Your task to perform on an android device: Search for sushi restaurants on Maps Image 0: 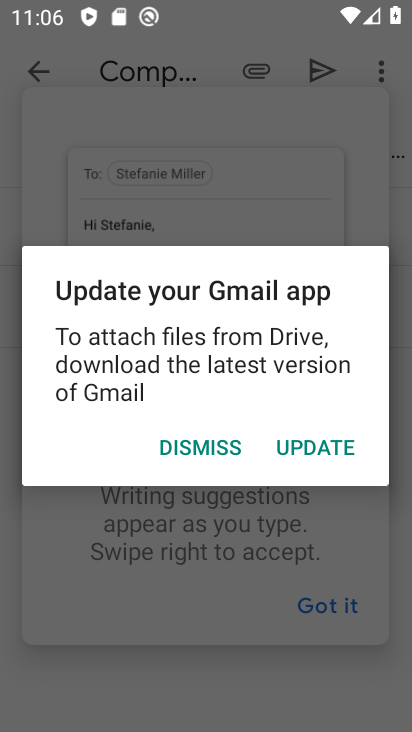
Step 0: press home button
Your task to perform on an android device: Search for sushi restaurants on Maps Image 1: 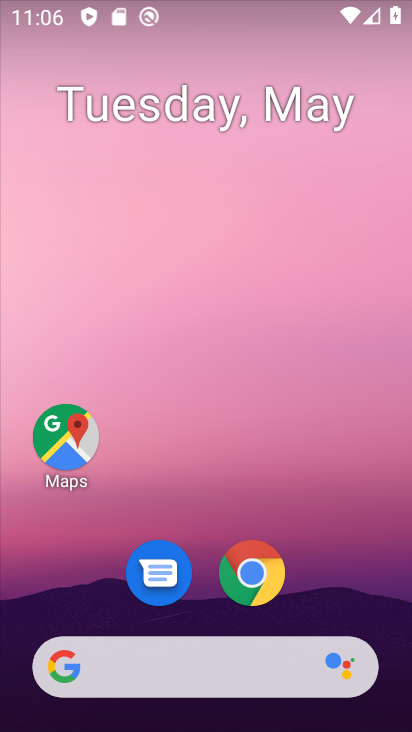
Step 1: drag from (309, 657) to (286, 48)
Your task to perform on an android device: Search for sushi restaurants on Maps Image 2: 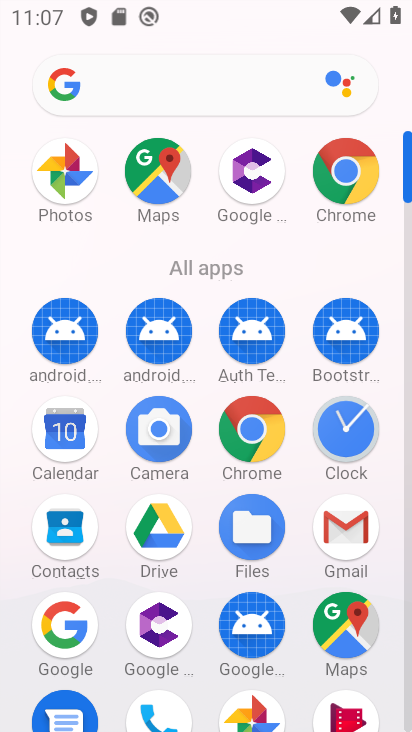
Step 2: click (158, 181)
Your task to perform on an android device: Search for sushi restaurants on Maps Image 3: 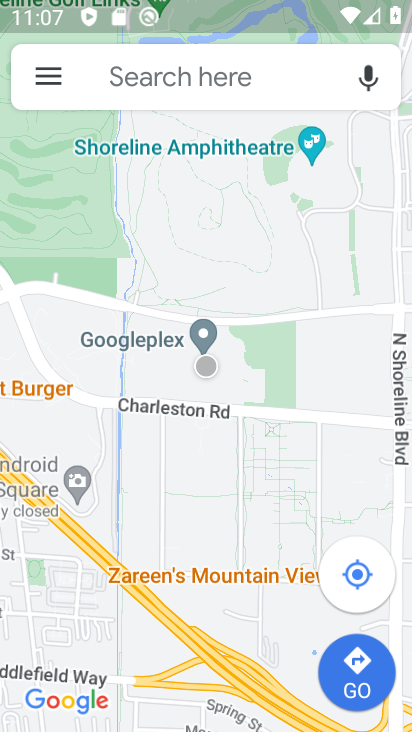
Step 3: click (154, 63)
Your task to perform on an android device: Search for sushi restaurants on Maps Image 4: 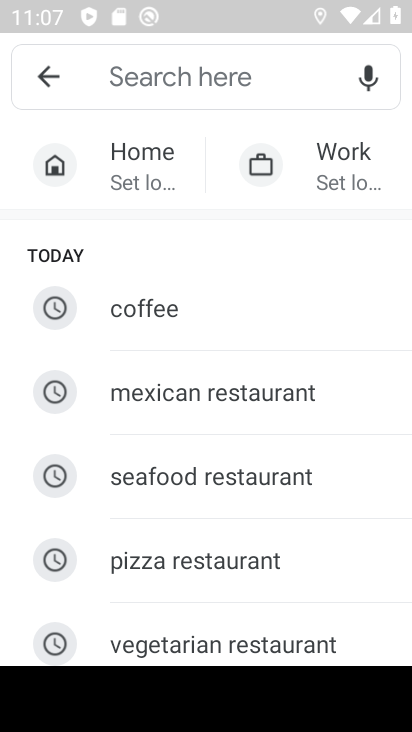
Step 4: drag from (385, 700) to (357, 600)
Your task to perform on an android device: Search for sushi restaurants on Maps Image 5: 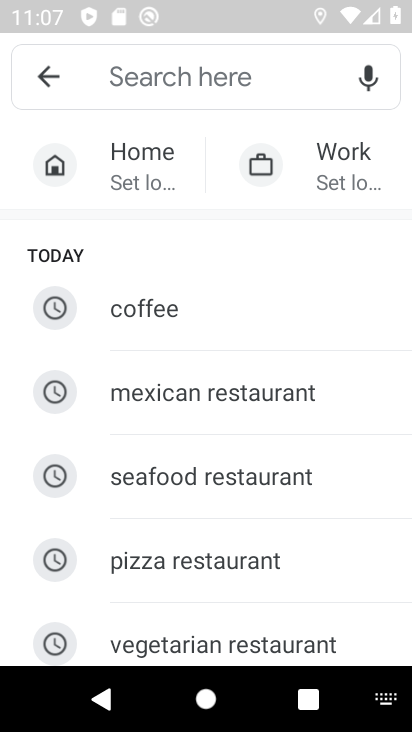
Step 5: click (386, 704)
Your task to perform on an android device: Search for sushi restaurants on Maps Image 6: 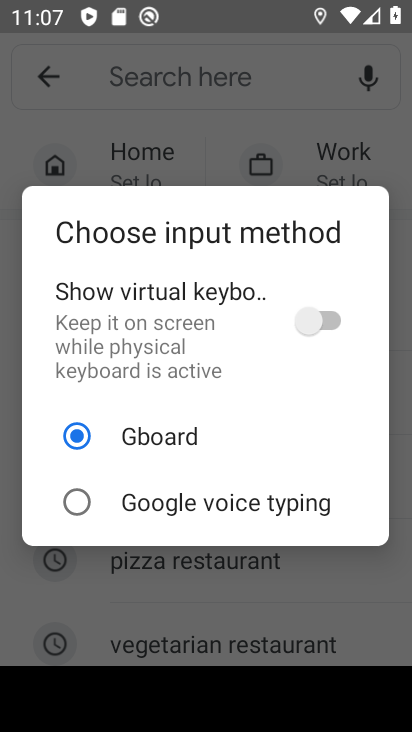
Step 6: click (329, 305)
Your task to perform on an android device: Search for sushi restaurants on Maps Image 7: 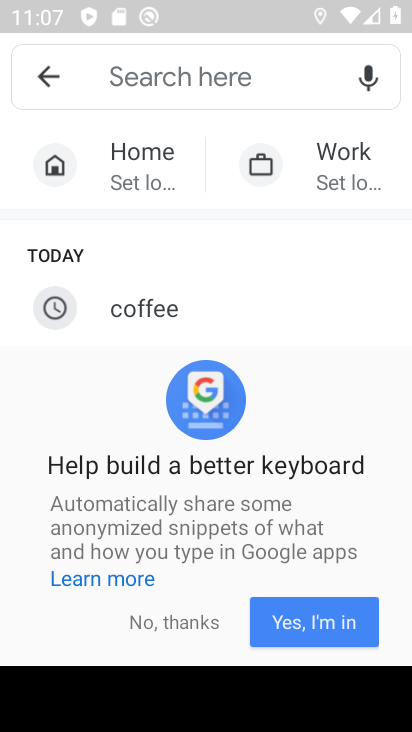
Step 7: click (166, 624)
Your task to perform on an android device: Search for sushi restaurants on Maps Image 8: 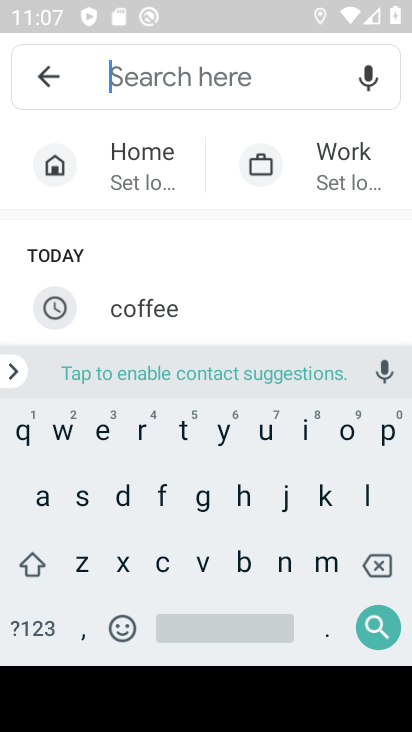
Step 8: click (80, 494)
Your task to perform on an android device: Search for sushi restaurants on Maps Image 9: 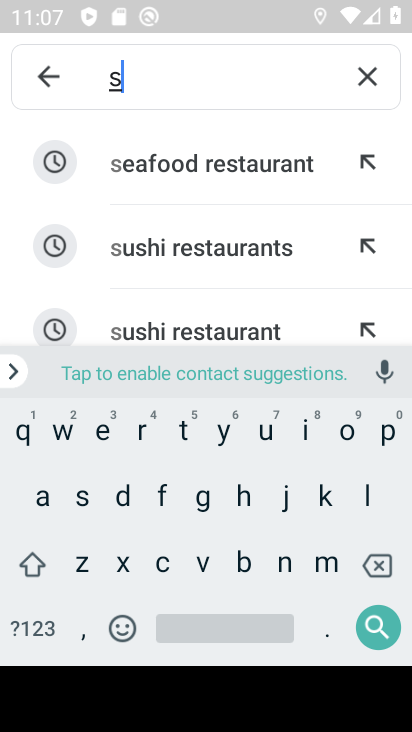
Step 9: click (175, 262)
Your task to perform on an android device: Search for sushi restaurants on Maps Image 10: 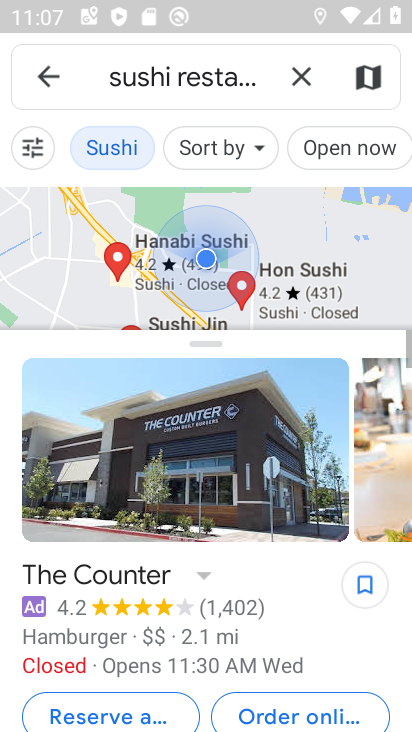
Step 10: task complete